Your task to perform on an android device: Play the last video I watched on Youtube Image 0: 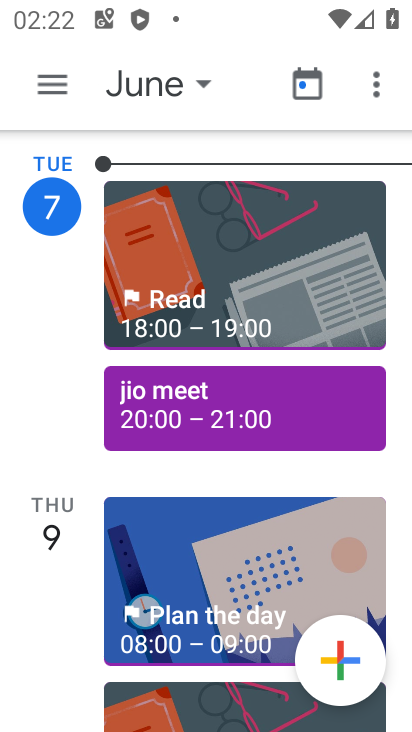
Step 0: press home button
Your task to perform on an android device: Play the last video I watched on Youtube Image 1: 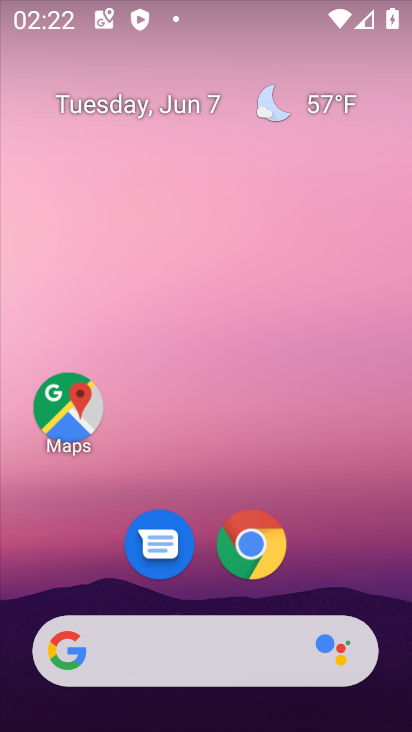
Step 1: drag from (312, 545) to (307, 254)
Your task to perform on an android device: Play the last video I watched on Youtube Image 2: 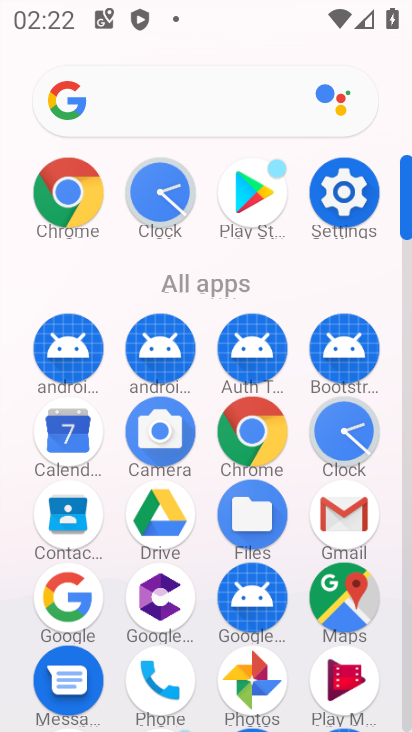
Step 2: drag from (306, 638) to (320, 358)
Your task to perform on an android device: Play the last video I watched on Youtube Image 3: 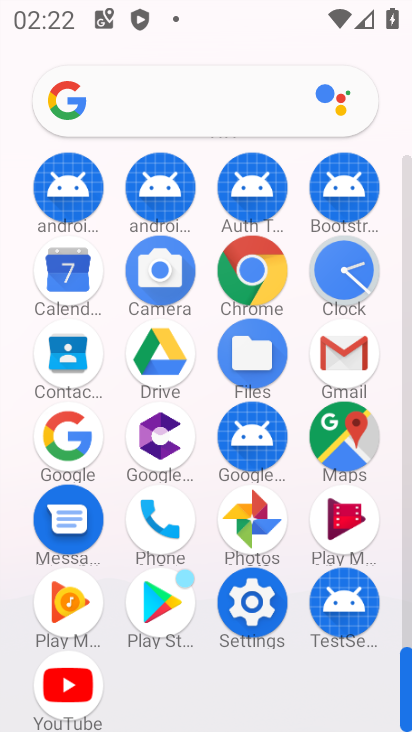
Step 3: click (74, 670)
Your task to perform on an android device: Play the last video I watched on Youtube Image 4: 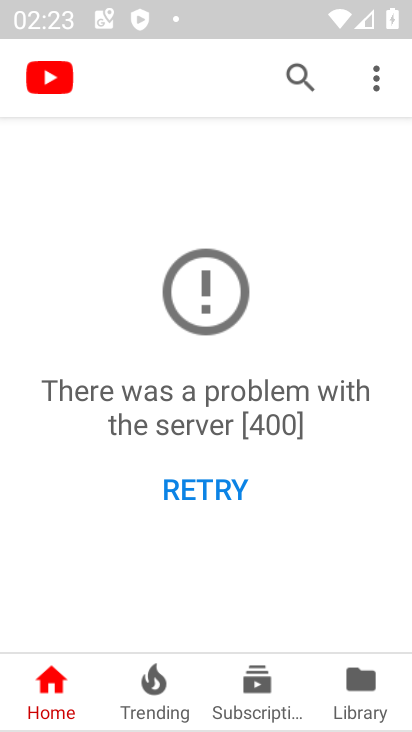
Step 4: click (314, 59)
Your task to perform on an android device: Play the last video I watched on Youtube Image 5: 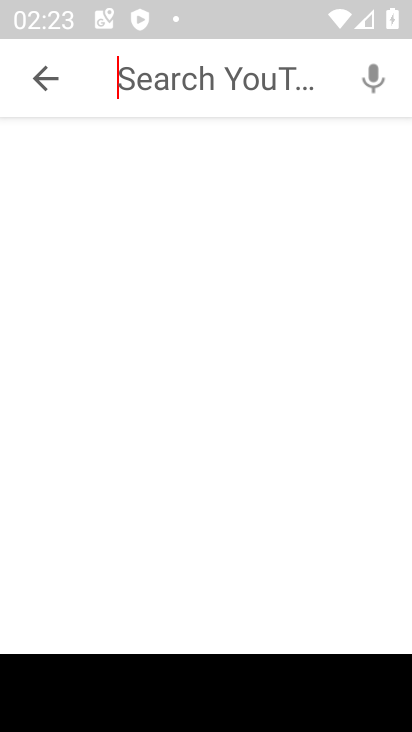
Step 5: type "india"
Your task to perform on an android device: Play the last video I watched on Youtube Image 6: 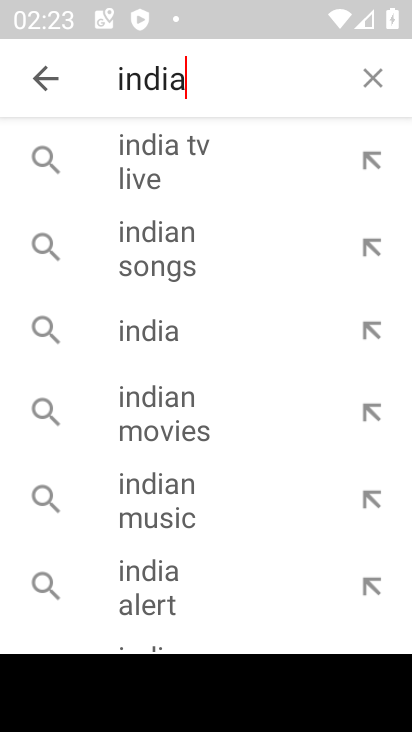
Step 6: click (174, 146)
Your task to perform on an android device: Play the last video I watched on Youtube Image 7: 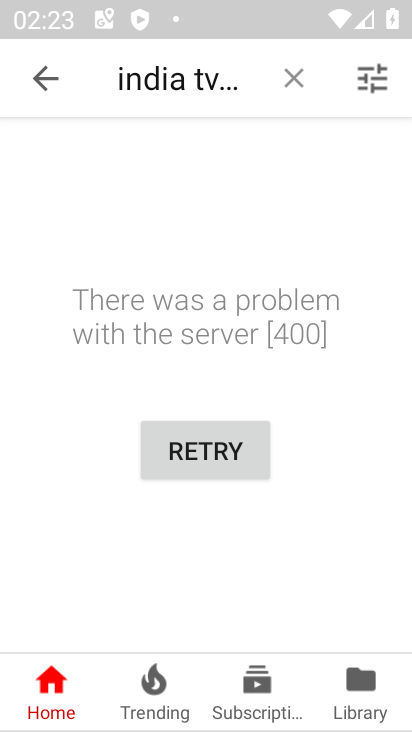
Step 7: task complete